Your task to perform on an android device: Go to CNN.com Image 0: 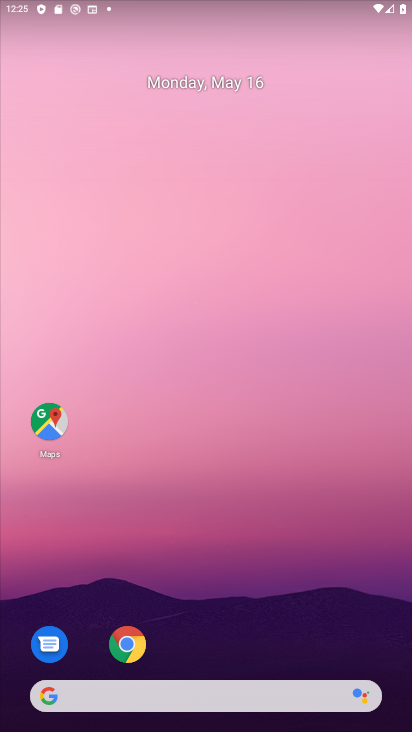
Step 0: click (133, 637)
Your task to perform on an android device: Go to CNN.com Image 1: 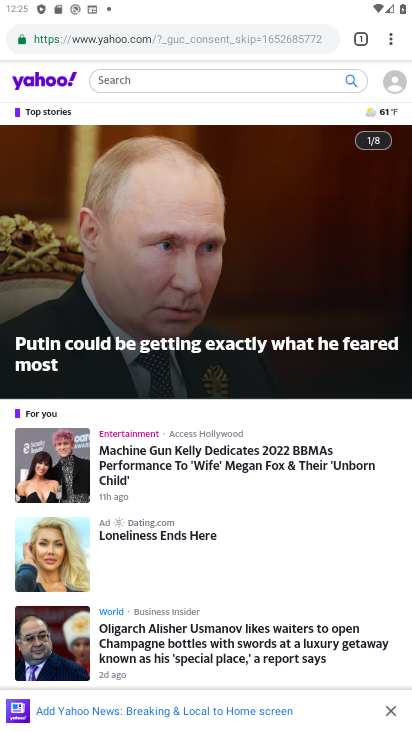
Step 1: click (200, 36)
Your task to perform on an android device: Go to CNN.com Image 2: 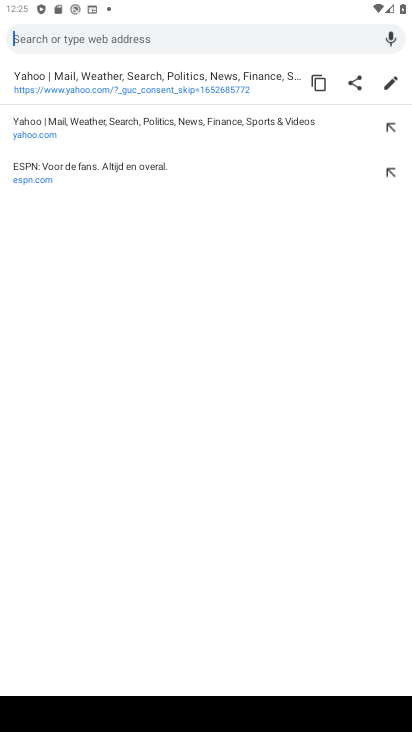
Step 2: type "cnn.com"
Your task to perform on an android device: Go to CNN.com Image 3: 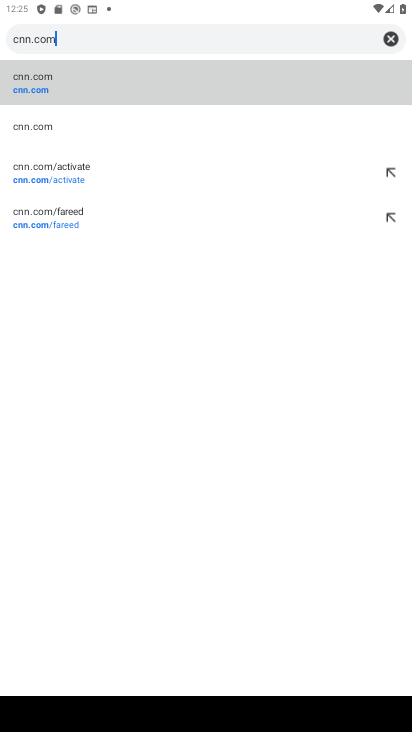
Step 3: click (74, 82)
Your task to perform on an android device: Go to CNN.com Image 4: 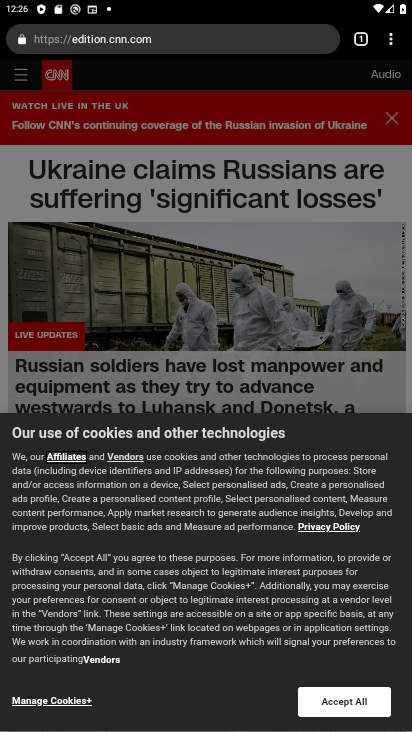
Step 4: task complete